Your task to perform on an android device: Go to accessibility settings Image 0: 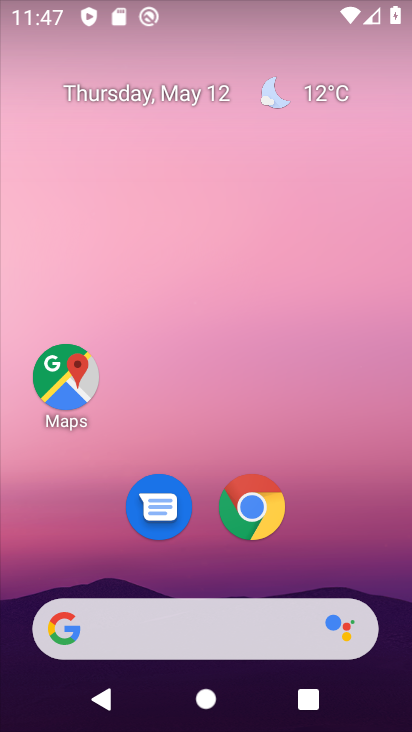
Step 0: drag from (328, 566) to (331, 127)
Your task to perform on an android device: Go to accessibility settings Image 1: 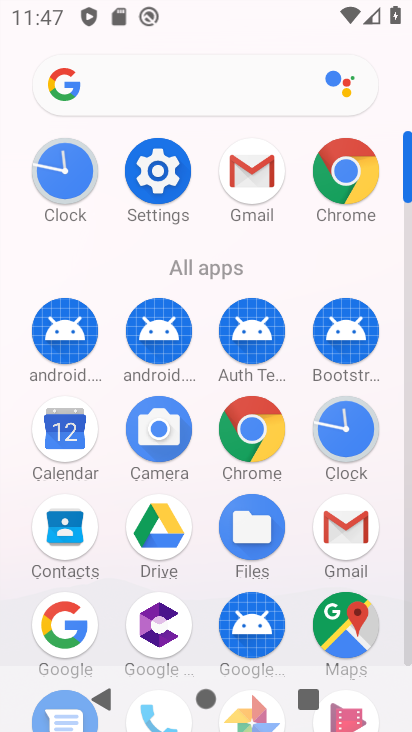
Step 1: click (173, 190)
Your task to perform on an android device: Go to accessibility settings Image 2: 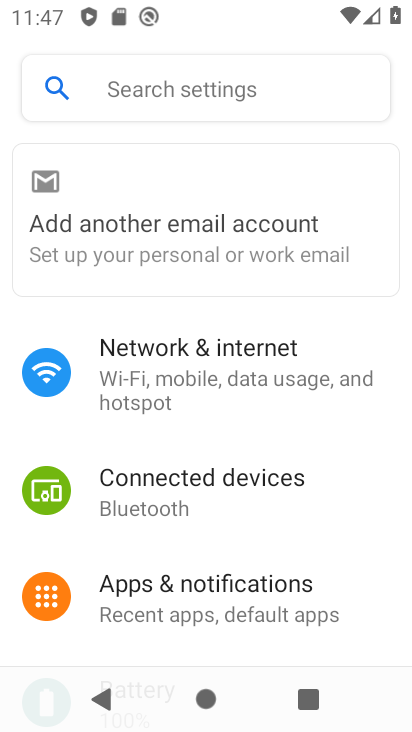
Step 2: drag from (237, 545) to (237, 167)
Your task to perform on an android device: Go to accessibility settings Image 3: 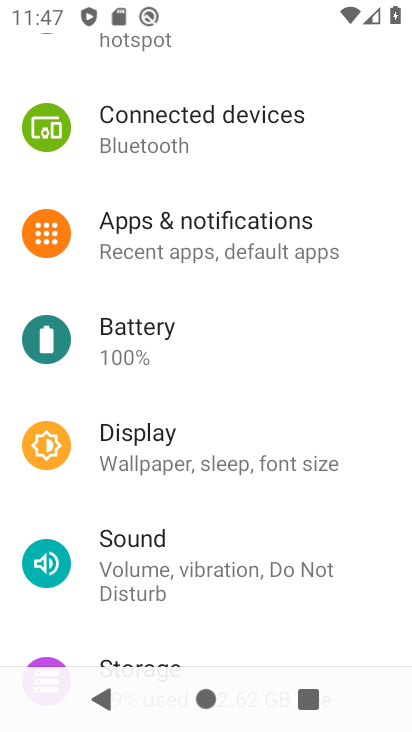
Step 3: drag from (226, 566) to (267, 142)
Your task to perform on an android device: Go to accessibility settings Image 4: 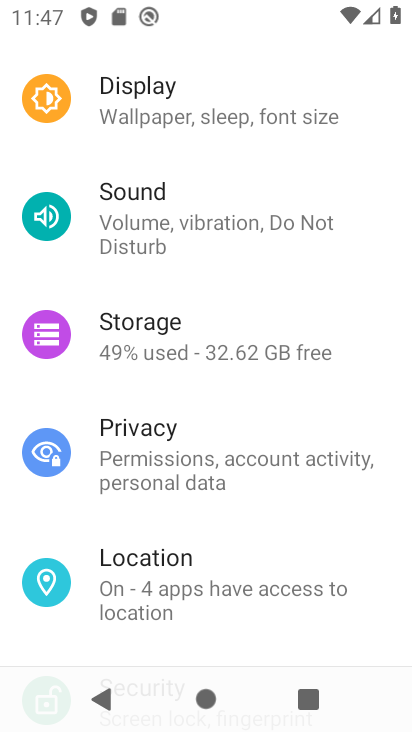
Step 4: drag from (248, 570) to (256, 170)
Your task to perform on an android device: Go to accessibility settings Image 5: 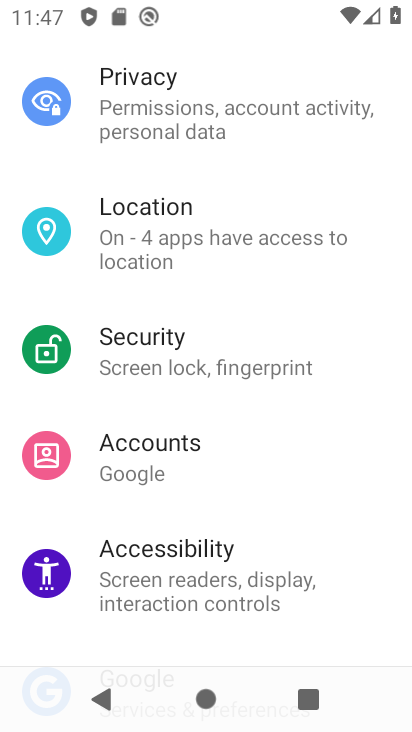
Step 5: click (236, 581)
Your task to perform on an android device: Go to accessibility settings Image 6: 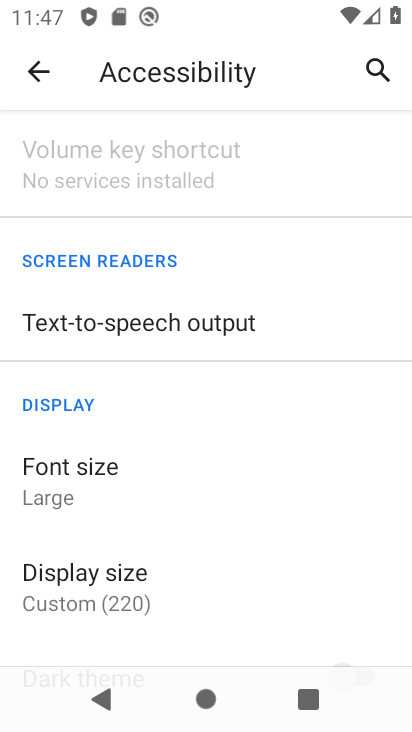
Step 6: task complete